Your task to perform on an android device: Turn off the flashlight Image 0: 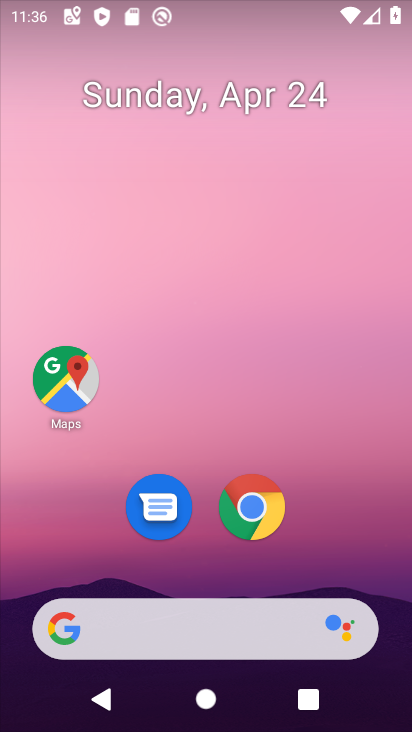
Step 0: drag from (302, 543) to (231, 32)
Your task to perform on an android device: Turn off the flashlight Image 1: 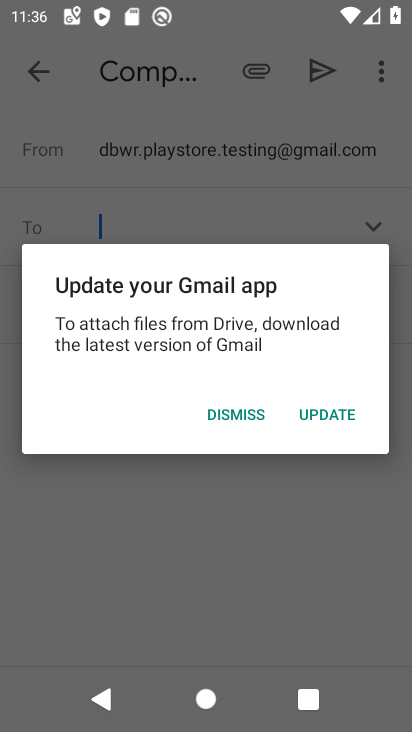
Step 1: click (221, 412)
Your task to perform on an android device: Turn off the flashlight Image 2: 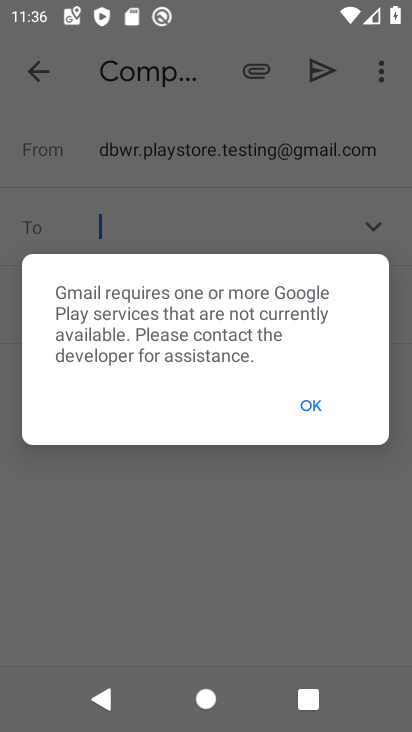
Step 2: click (295, 393)
Your task to perform on an android device: Turn off the flashlight Image 3: 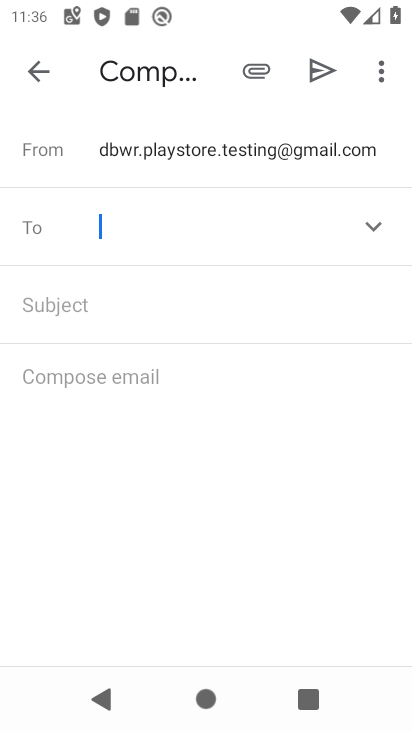
Step 3: press back button
Your task to perform on an android device: Turn off the flashlight Image 4: 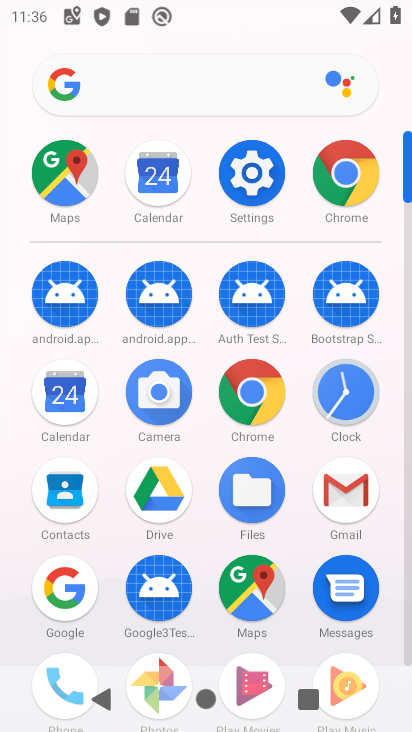
Step 4: click (255, 166)
Your task to perform on an android device: Turn off the flashlight Image 5: 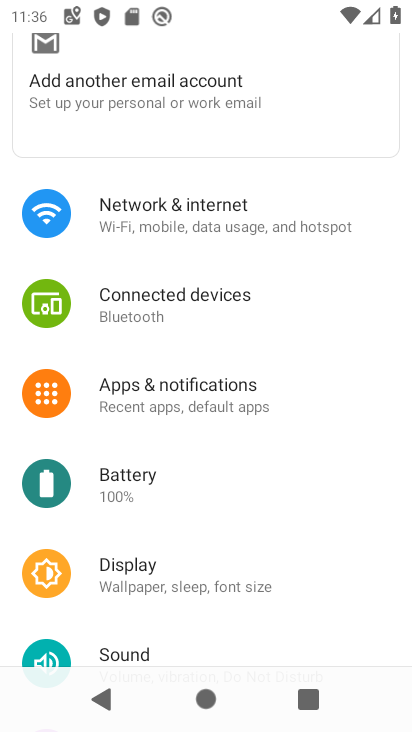
Step 5: click (258, 205)
Your task to perform on an android device: Turn off the flashlight Image 6: 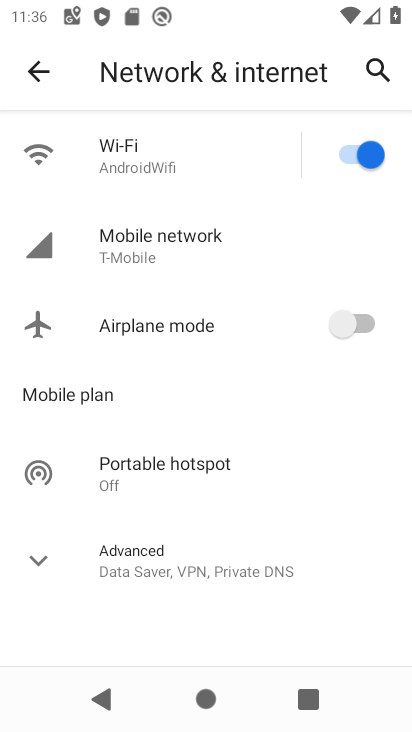
Step 6: click (43, 554)
Your task to perform on an android device: Turn off the flashlight Image 7: 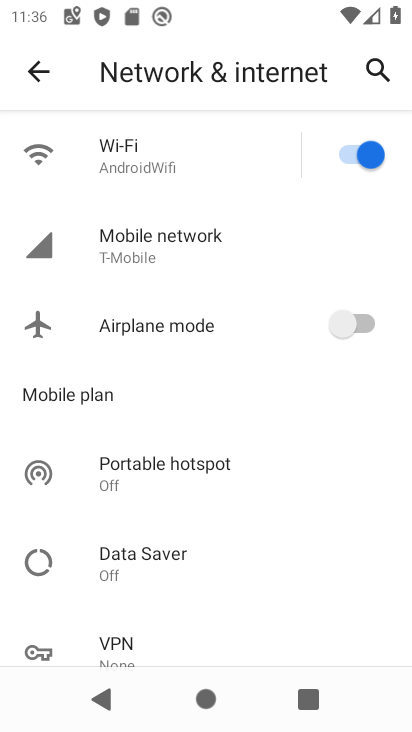
Step 7: drag from (231, 535) to (234, 162)
Your task to perform on an android device: Turn off the flashlight Image 8: 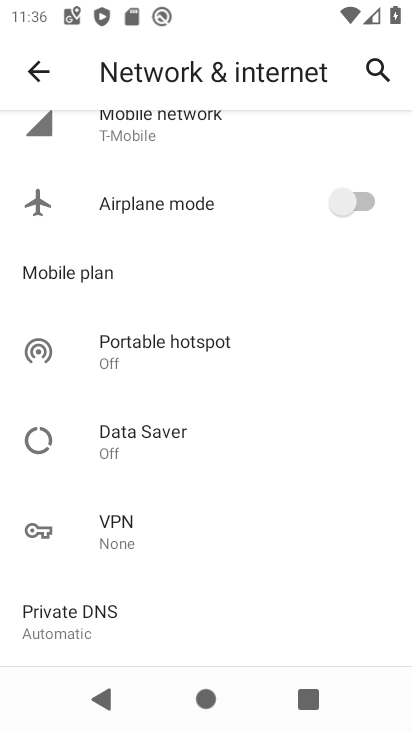
Step 8: drag from (212, 216) to (192, 619)
Your task to perform on an android device: Turn off the flashlight Image 9: 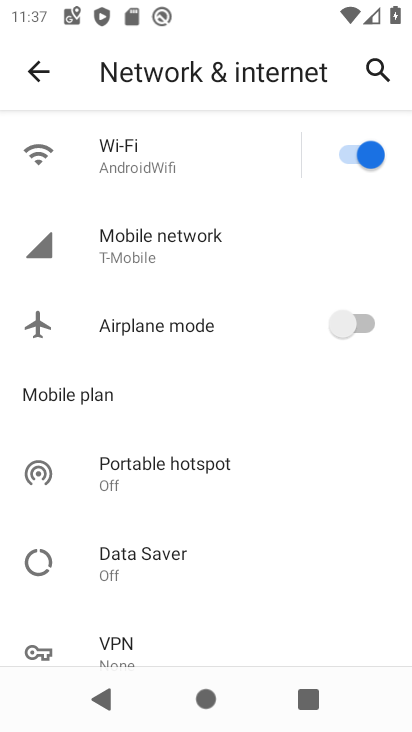
Step 9: drag from (198, 558) to (192, 168)
Your task to perform on an android device: Turn off the flashlight Image 10: 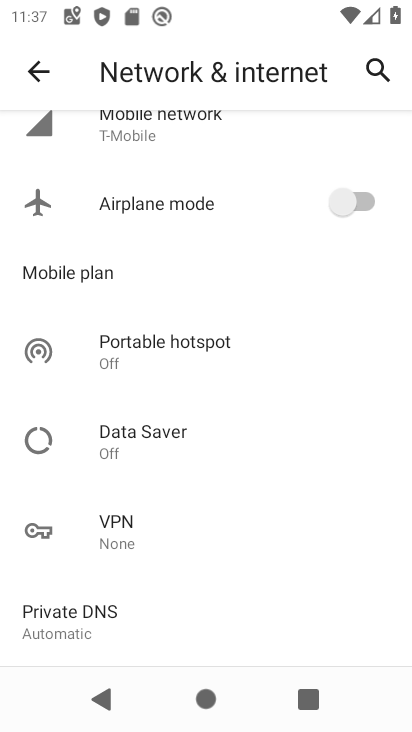
Step 10: drag from (190, 426) to (193, 154)
Your task to perform on an android device: Turn off the flashlight Image 11: 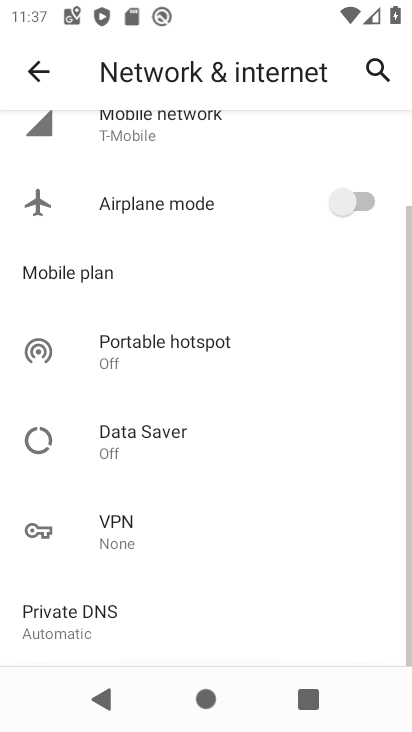
Step 11: click (49, 72)
Your task to perform on an android device: Turn off the flashlight Image 12: 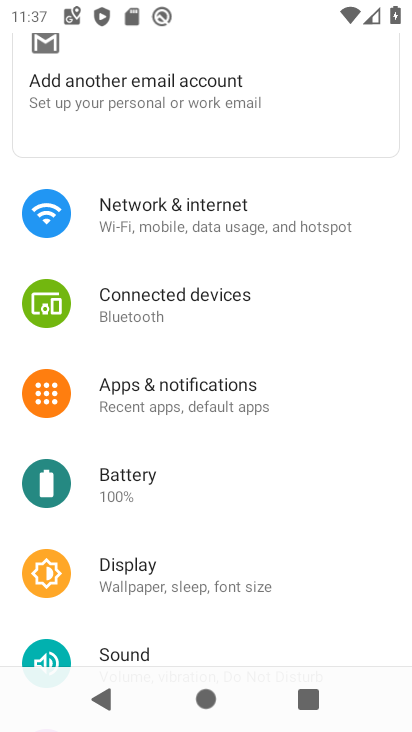
Step 12: click (176, 573)
Your task to perform on an android device: Turn off the flashlight Image 13: 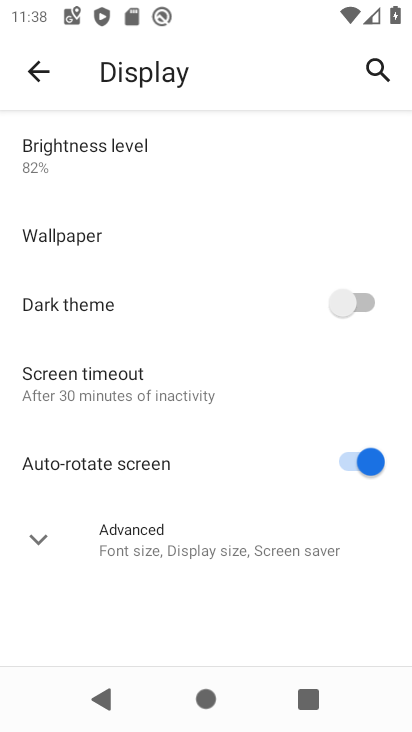
Step 13: click (43, 526)
Your task to perform on an android device: Turn off the flashlight Image 14: 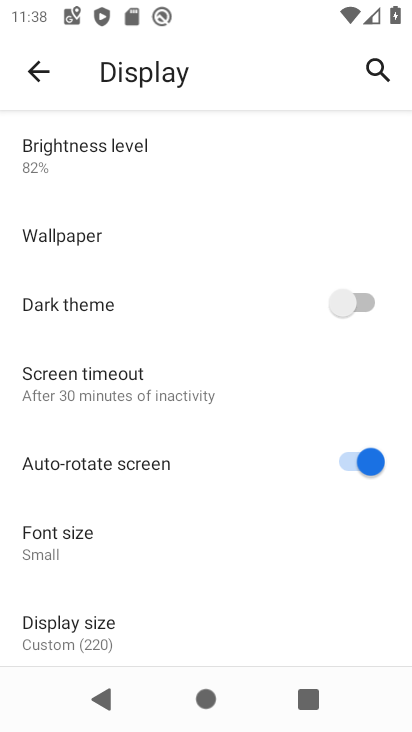
Step 14: task complete